Your task to perform on an android device: Open CNN.com Image 0: 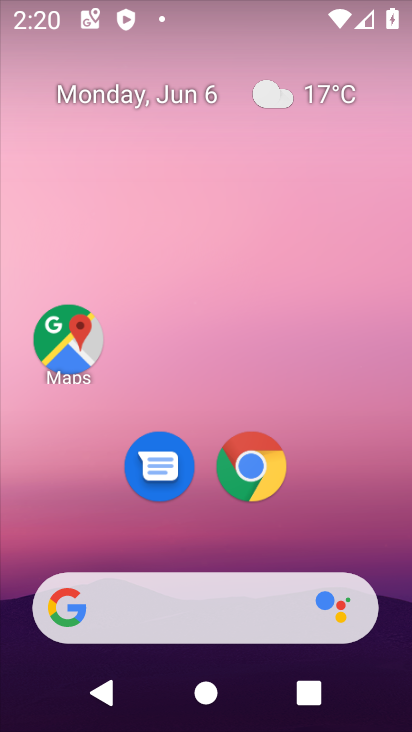
Step 0: drag from (261, 707) to (224, 68)
Your task to perform on an android device: Open CNN.com Image 1: 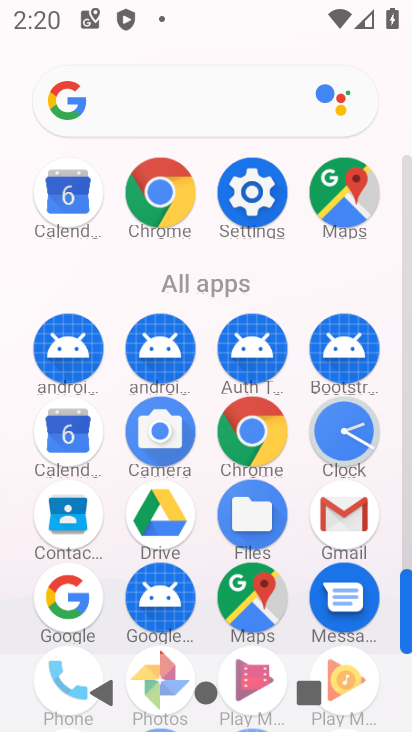
Step 1: click (155, 184)
Your task to perform on an android device: Open CNN.com Image 2: 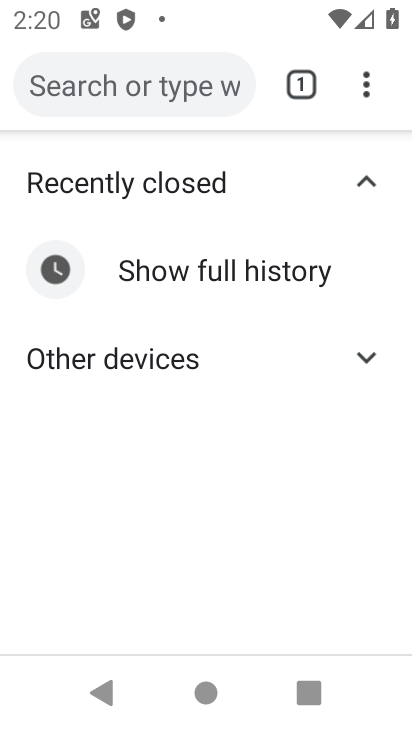
Step 2: press back button
Your task to perform on an android device: Open CNN.com Image 3: 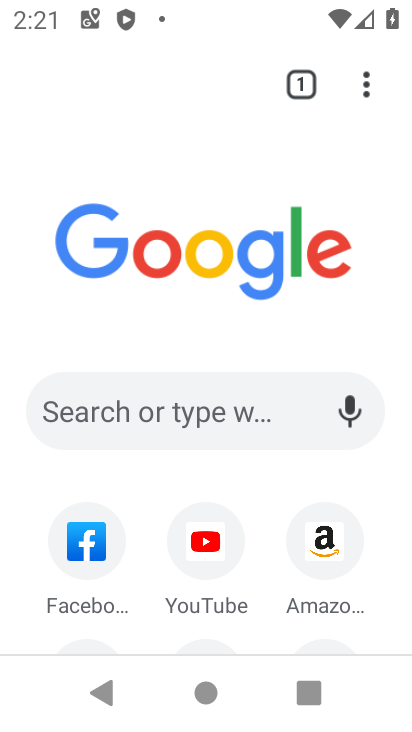
Step 3: drag from (246, 563) to (201, 262)
Your task to perform on an android device: Open CNN.com Image 4: 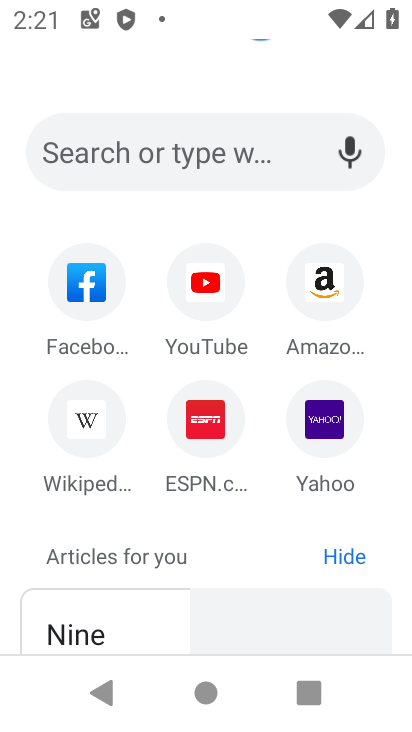
Step 4: drag from (255, 406) to (226, 159)
Your task to perform on an android device: Open CNN.com Image 5: 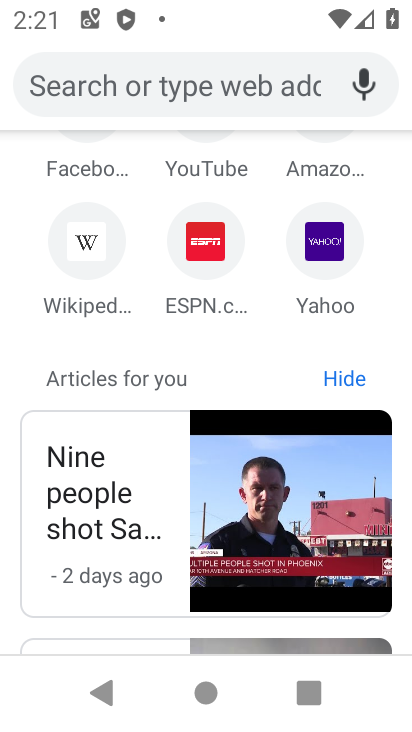
Step 5: drag from (132, 220) to (186, 579)
Your task to perform on an android device: Open CNN.com Image 6: 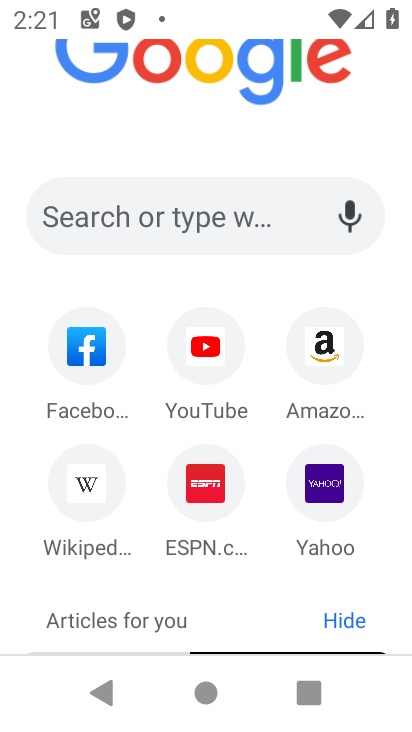
Step 6: drag from (170, 354) to (224, 595)
Your task to perform on an android device: Open CNN.com Image 7: 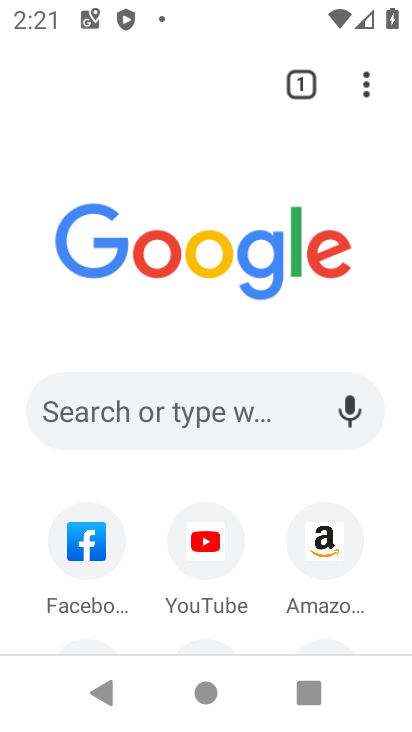
Step 7: click (61, 418)
Your task to perform on an android device: Open CNN.com Image 8: 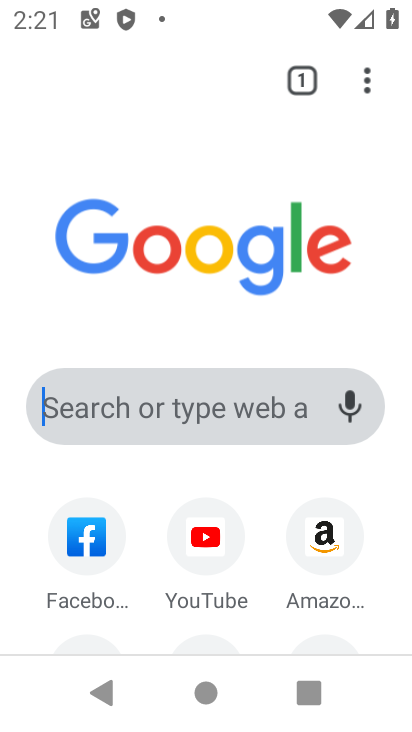
Step 8: click (62, 417)
Your task to perform on an android device: Open CNN.com Image 9: 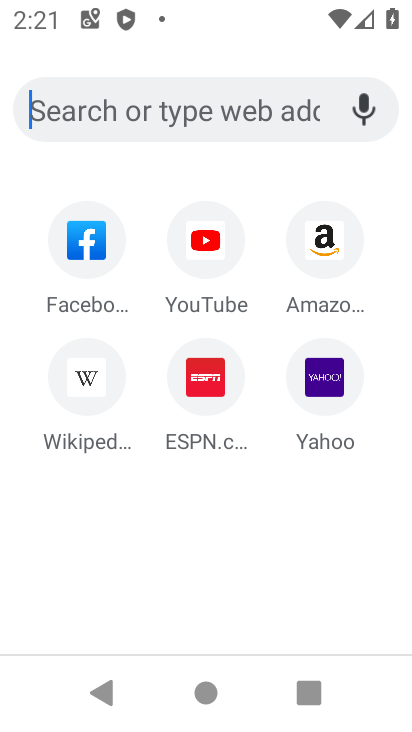
Step 9: click (77, 412)
Your task to perform on an android device: Open CNN.com Image 10: 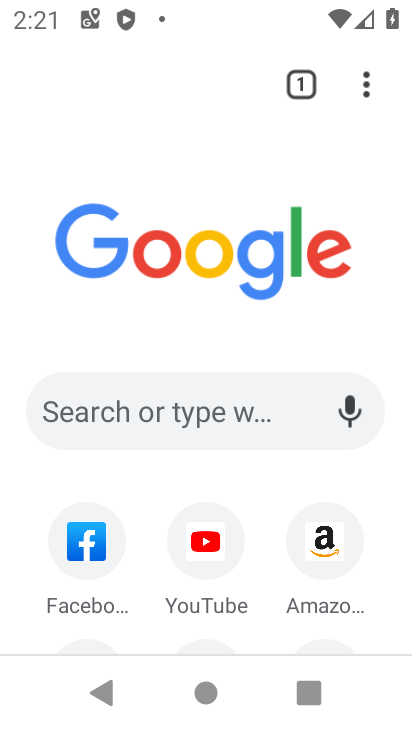
Step 10: type "cnn.com"
Your task to perform on an android device: Open CNN.com Image 11: 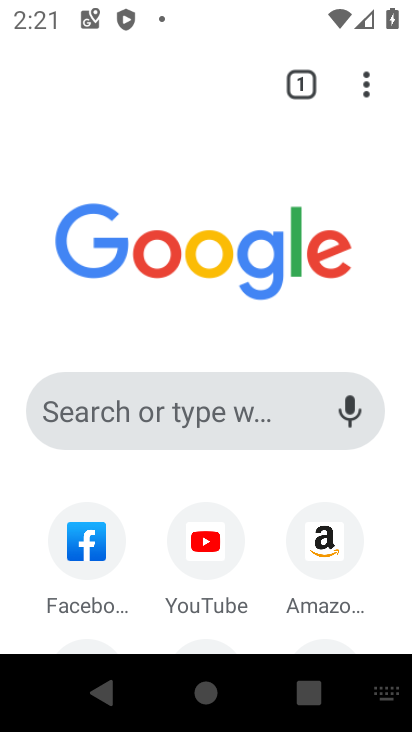
Step 11: click (67, 412)
Your task to perform on an android device: Open CNN.com Image 12: 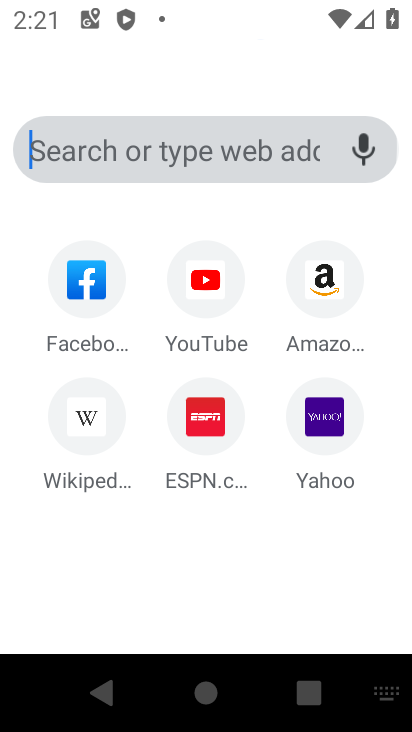
Step 12: click (67, 412)
Your task to perform on an android device: Open CNN.com Image 13: 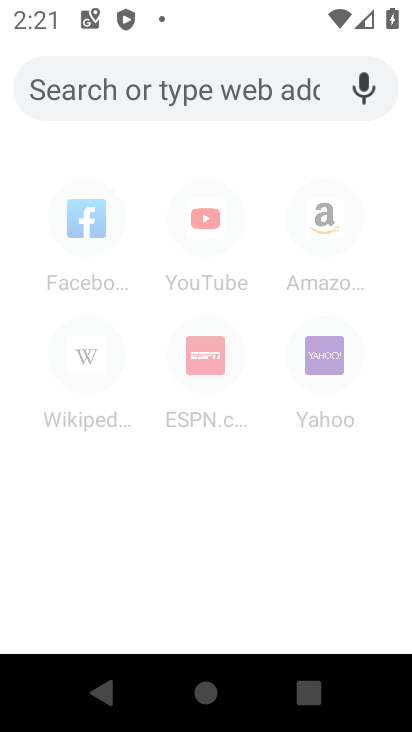
Step 13: click (67, 412)
Your task to perform on an android device: Open CNN.com Image 14: 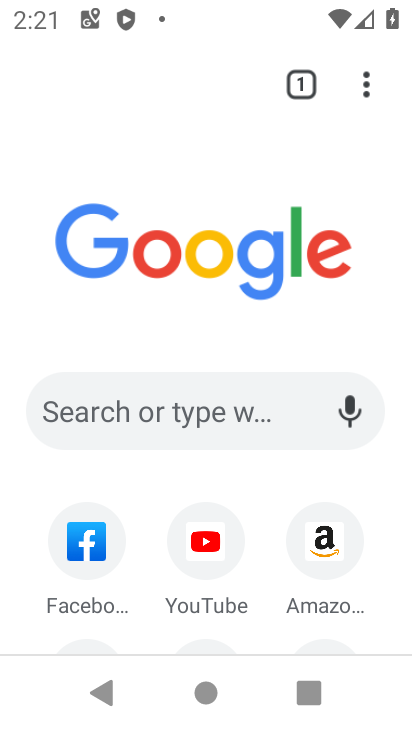
Step 14: click (64, 416)
Your task to perform on an android device: Open CNN.com Image 15: 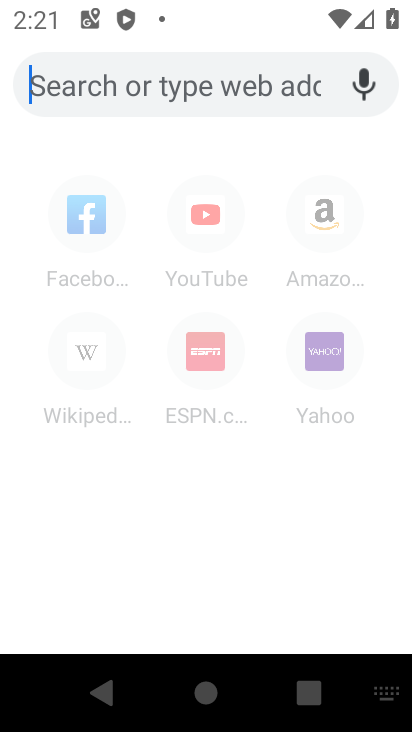
Step 15: type "cnn.com"
Your task to perform on an android device: Open CNN.com Image 16: 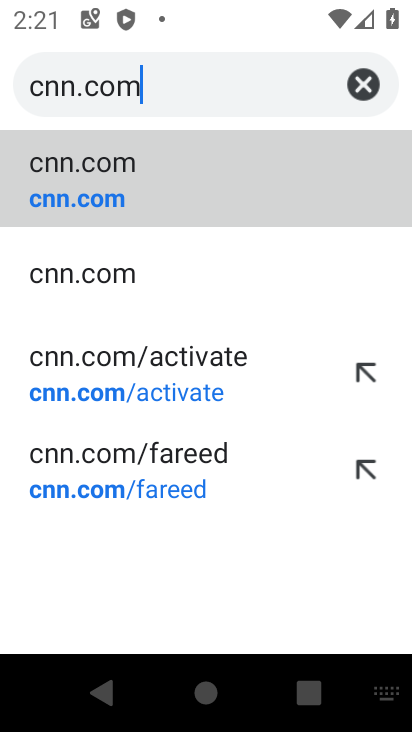
Step 16: click (92, 180)
Your task to perform on an android device: Open CNN.com Image 17: 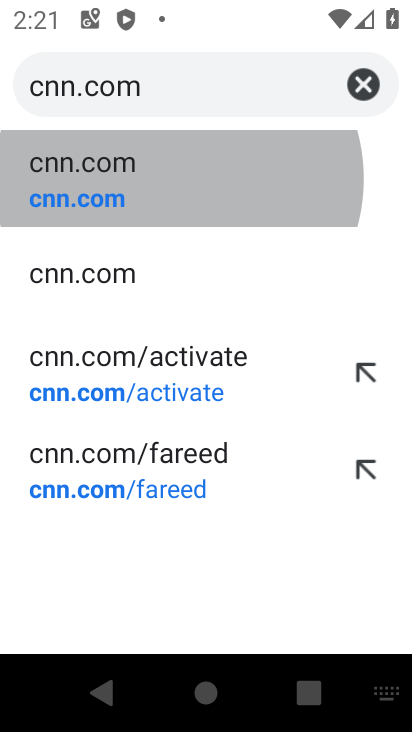
Step 17: click (90, 189)
Your task to perform on an android device: Open CNN.com Image 18: 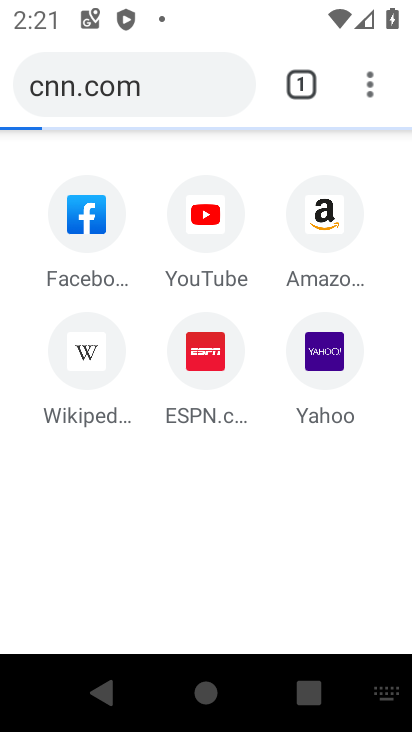
Step 18: click (90, 189)
Your task to perform on an android device: Open CNN.com Image 19: 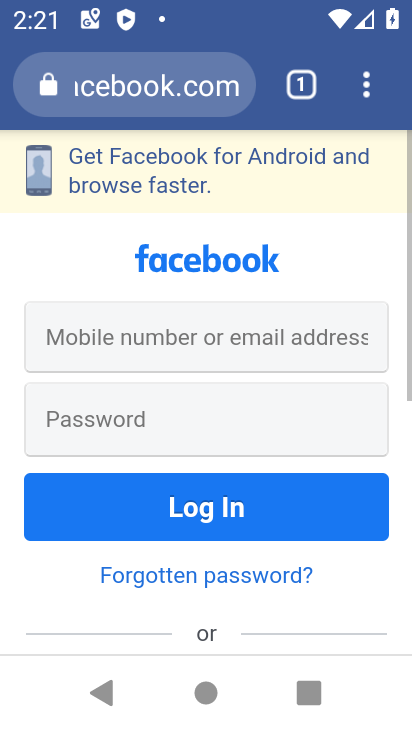
Step 19: task complete